Your task to perform on an android device: Open calendar and show me the fourth week of next month Image 0: 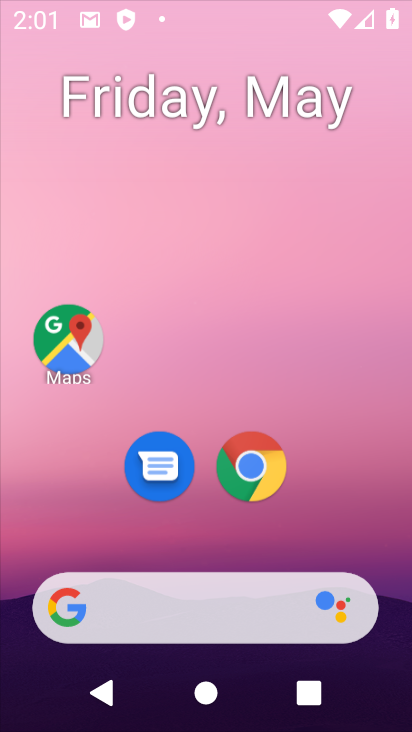
Step 0: click (290, 84)
Your task to perform on an android device: Open calendar and show me the fourth week of next month Image 1: 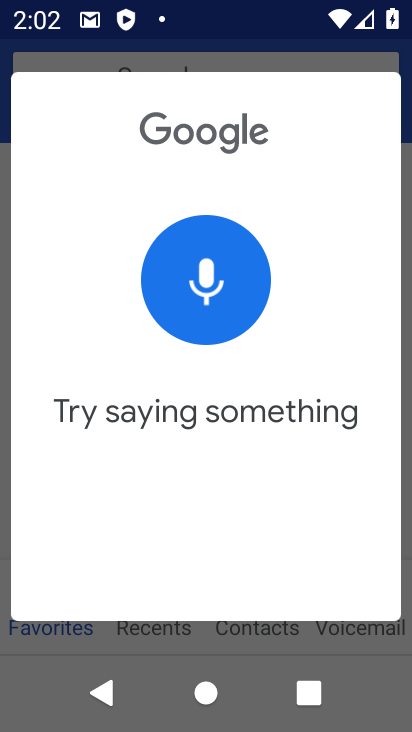
Step 1: press home button
Your task to perform on an android device: Open calendar and show me the fourth week of next month Image 2: 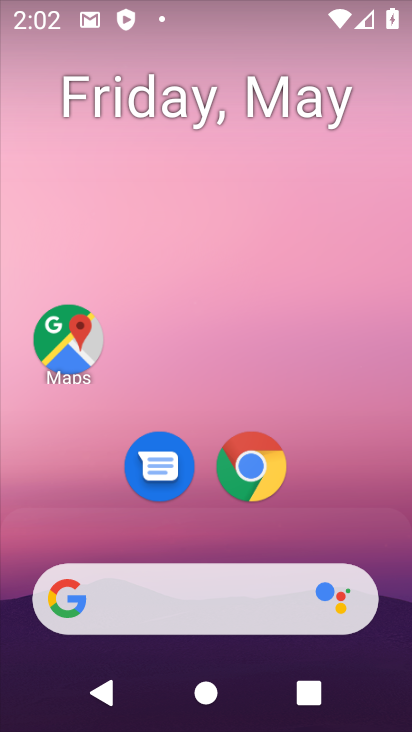
Step 2: drag from (246, 483) to (320, 29)
Your task to perform on an android device: Open calendar and show me the fourth week of next month Image 3: 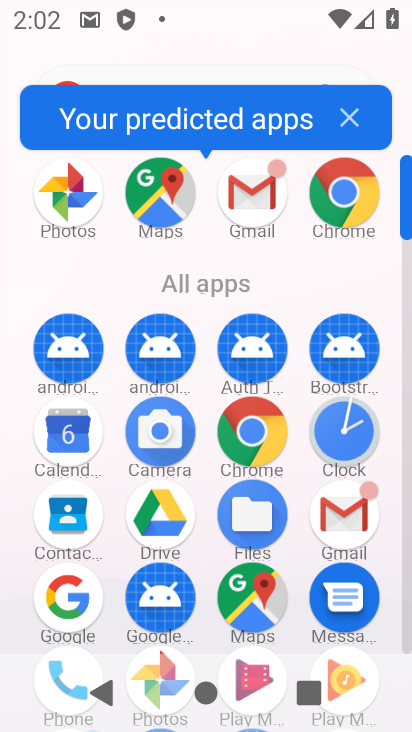
Step 3: click (83, 432)
Your task to perform on an android device: Open calendar and show me the fourth week of next month Image 4: 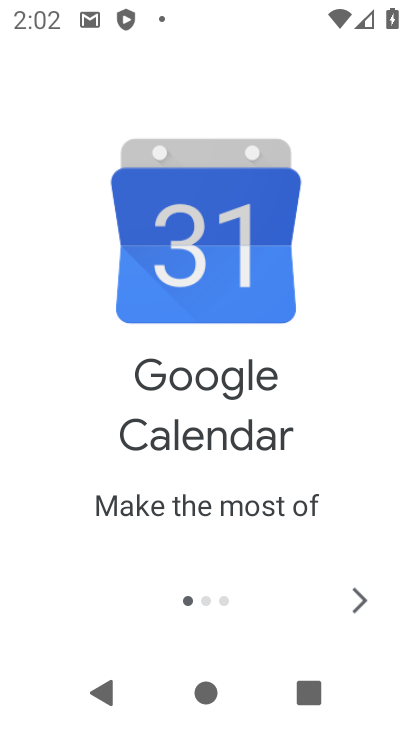
Step 4: click (352, 599)
Your task to perform on an android device: Open calendar and show me the fourth week of next month Image 5: 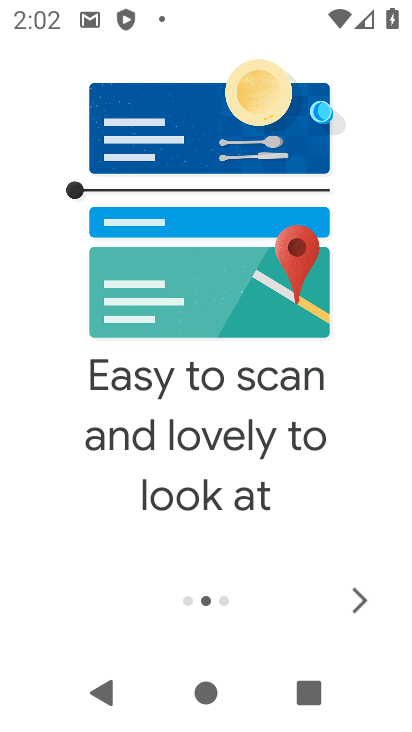
Step 5: click (354, 595)
Your task to perform on an android device: Open calendar and show me the fourth week of next month Image 6: 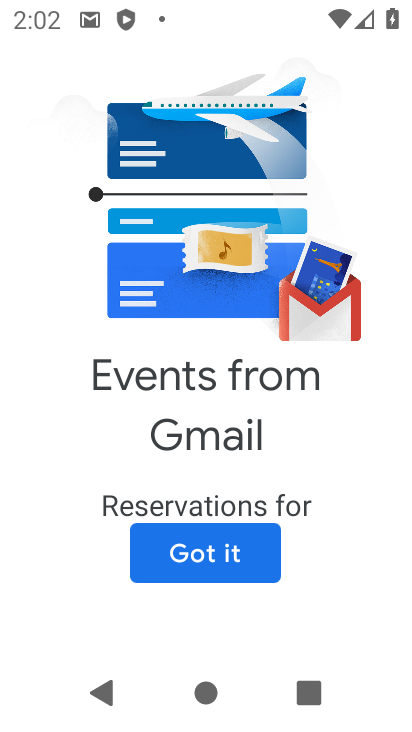
Step 6: click (212, 555)
Your task to perform on an android device: Open calendar and show me the fourth week of next month Image 7: 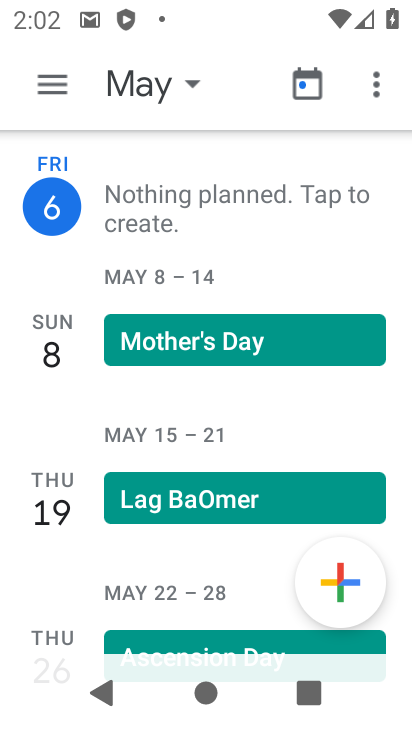
Step 7: click (147, 95)
Your task to perform on an android device: Open calendar and show me the fourth week of next month Image 8: 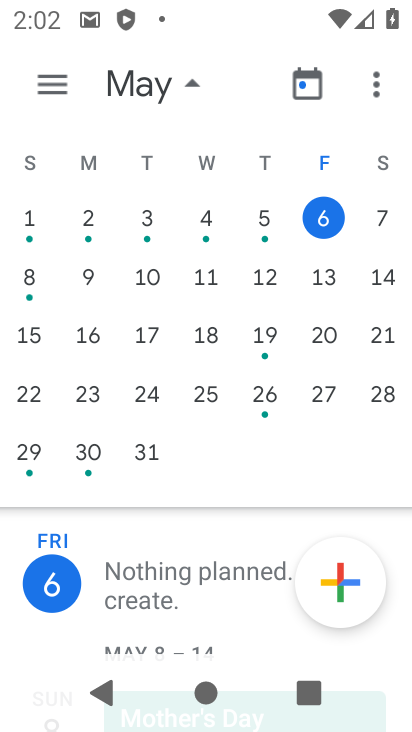
Step 8: drag from (351, 345) to (29, 223)
Your task to perform on an android device: Open calendar and show me the fourth week of next month Image 9: 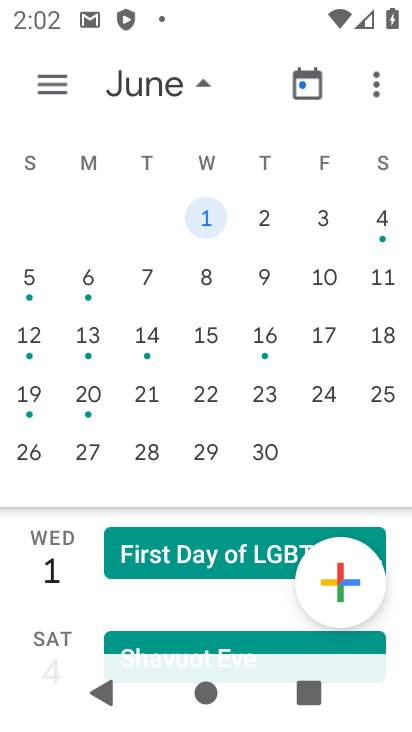
Step 9: drag from (392, 347) to (72, 324)
Your task to perform on an android device: Open calendar and show me the fourth week of next month Image 10: 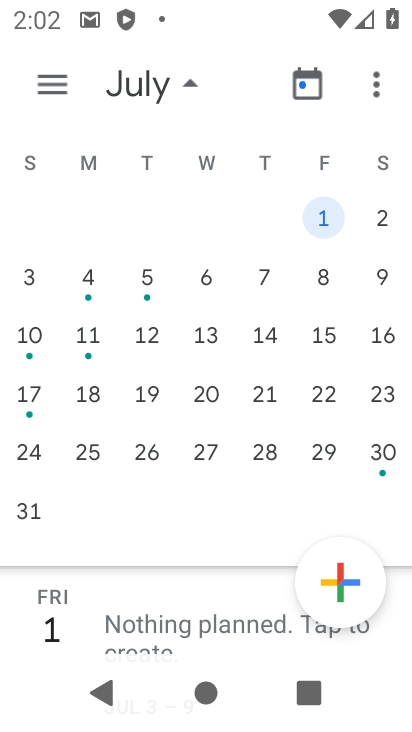
Step 10: drag from (41, 359) to (296, 348)
Your task to perform on an android device: Open calendar and show me the fourth week of next month Image 11: 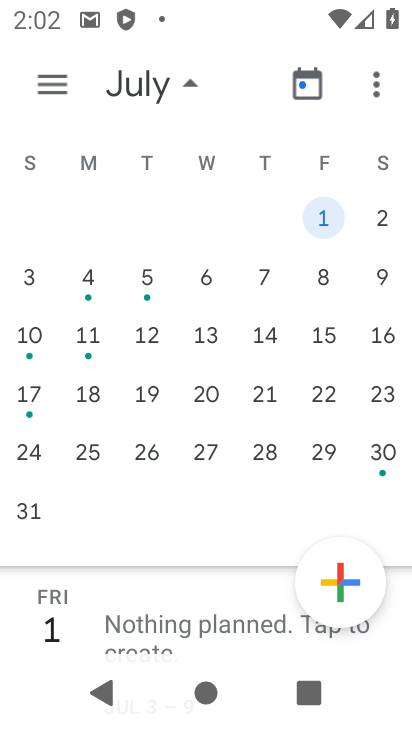
Step 11: drag from (345, 345) to (407, 319)
Your task to perform on an android device: Open calendar and show me the fourth week of next month Image 12: 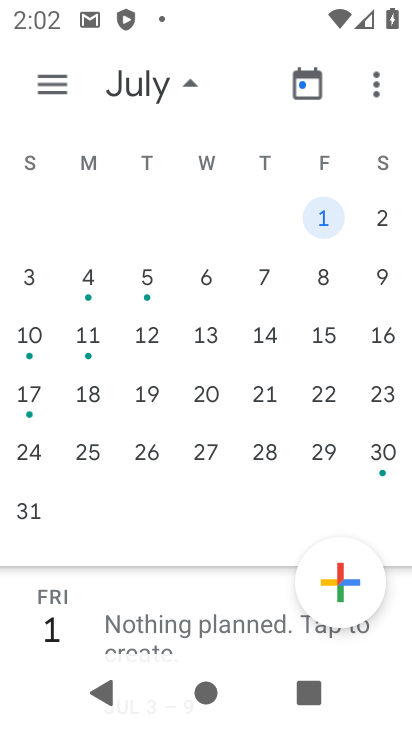
Step 12: drag from (119, 299) to (407, 295)
Your task to perform on an android device: Open calendar and show me the fourth week of next month Image 13: 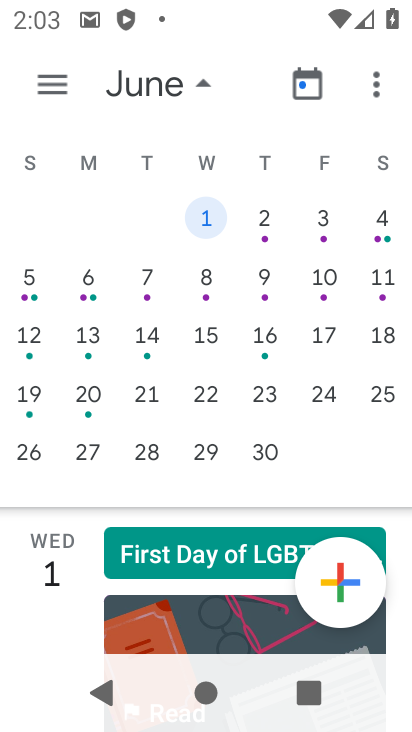
Step 13: click (86, 454)
Your task to perform on an android device: Open calendar and show me the fourth week of next month Image 14: 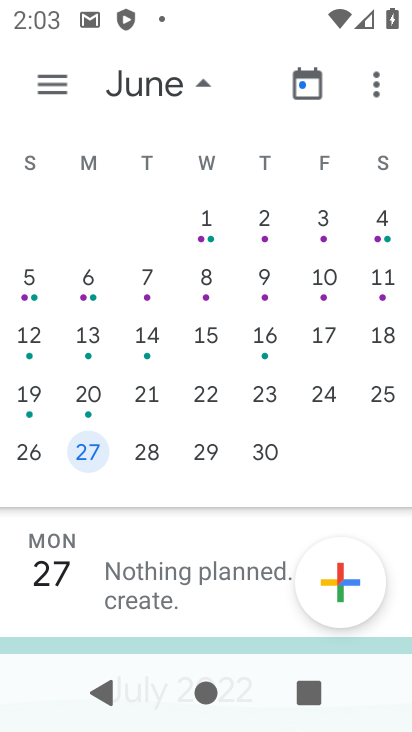
Step 14: task complete